Your task to perform on an android device: Open the stopwatch Image 0: 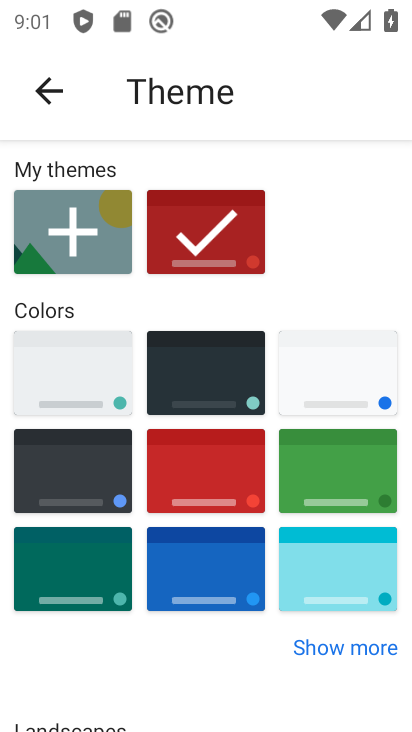
Step 0: press home button
Your task to perform on an android device: Open the stopwatch Image 1: 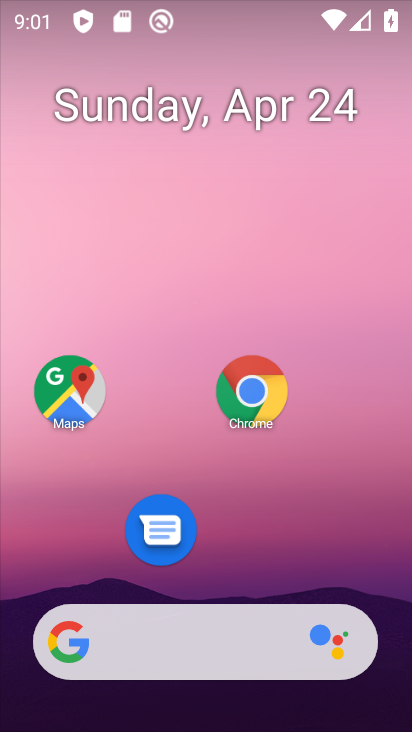
Step 1: drag from (244, 564) to (263, 365)
Your task to perform on an android device: Open the stopwatch Image 2: 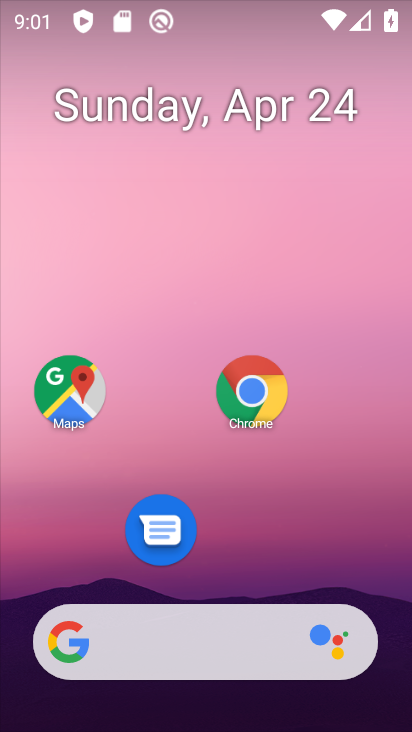
Step 2: drag from (230, 534) to (258, 3)
Your task to perform on an android device: Open the stopwatch Image 3: 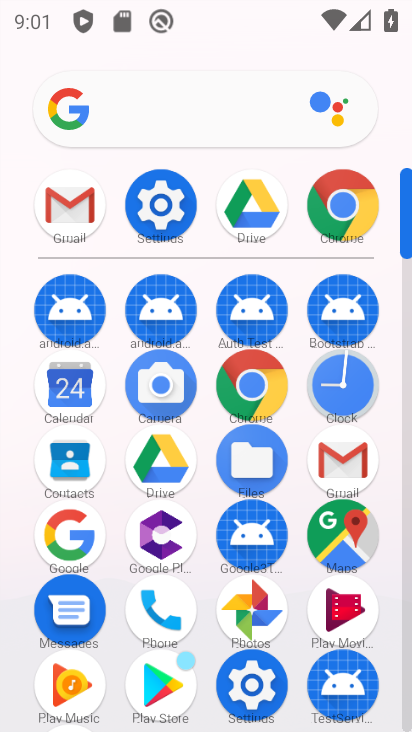
Step 3: click (315, 381)
Your task to perform on an android device: Open the stopwatch Image 4: 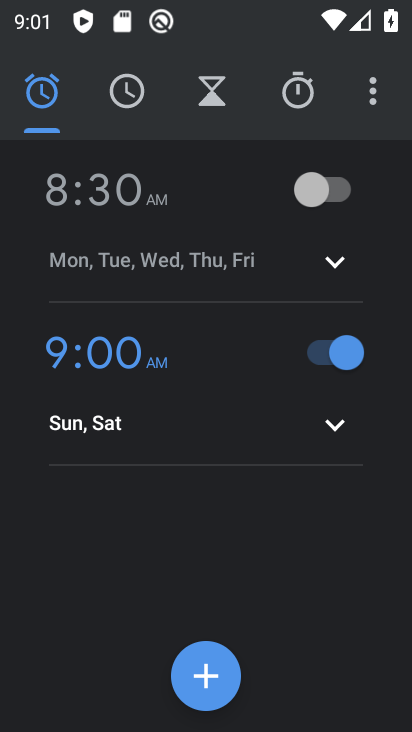
Step 4: click (312, 83)
Your task to perform on an android device: Open the stopwatch Image 5: 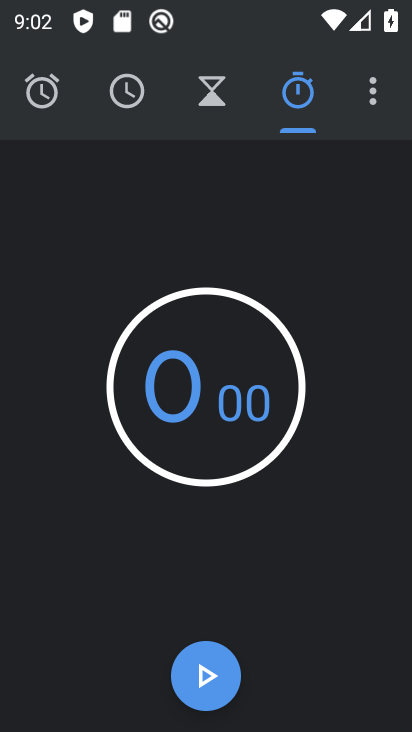
Step 5: task complete